Your task to perform on an android device: toggle location history Image 0: 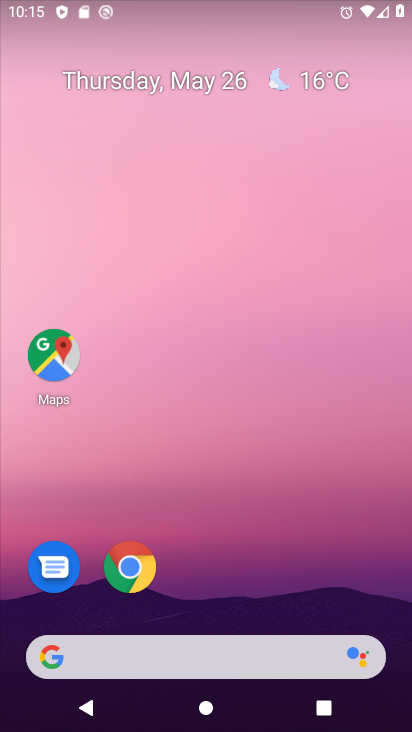
Step 0: press home button
Your task to perform on an android device: toggle location history Image 1: 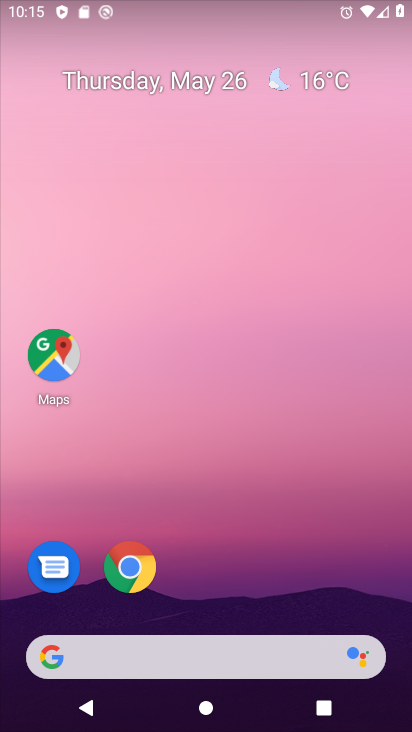
Step 1: drag from (395, 703) to (343, 188)
Your task to perform on an android device: toggle location history Image 2: 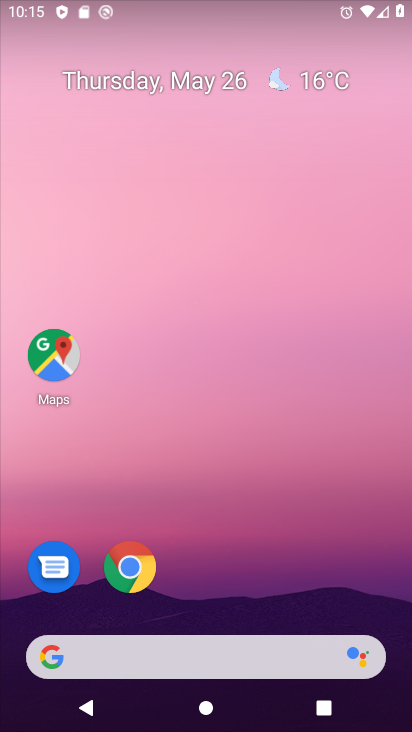
Step 2: drag from (364, 582) to (327, 166)
Your task to perform on an android device: toggle location history Image 3: 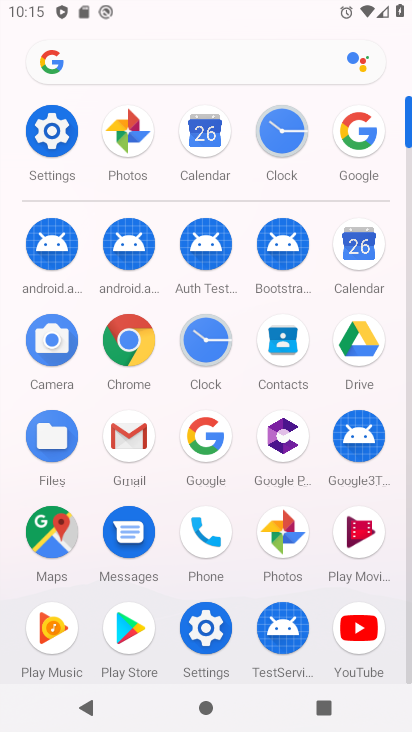
Step 3: click (47, 143)
Your task to perform on an android device: toggle location history Image 4: 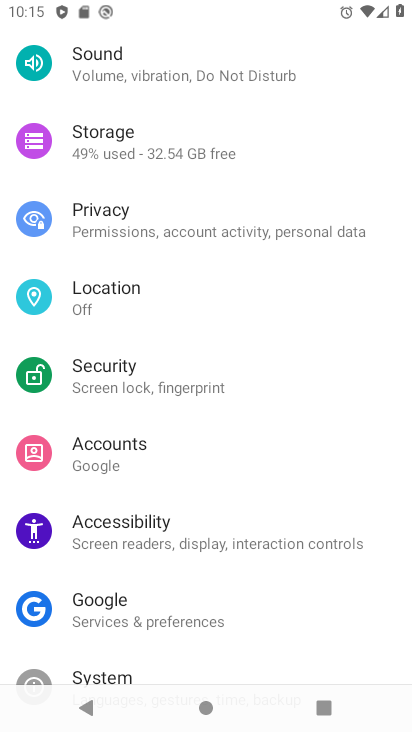
Step 4: drag from (311, 252) to (281, 580)
Your task to perform on an android device: toggle location history Image 5: 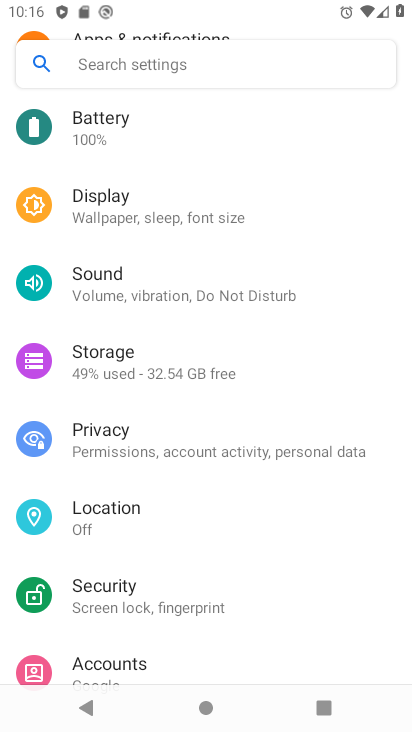
Step 5: click (69, 499)
Your task to perform on an android device: toggle location history Image 6: 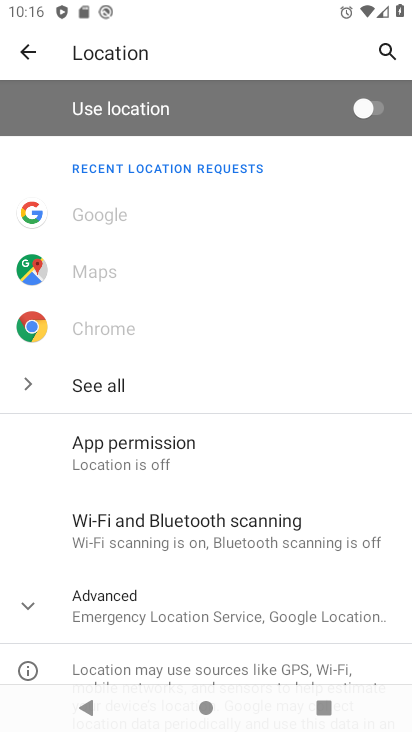
Step 6: click (25, 608)
Your task to perform on an android device: toggle location history Image 7: 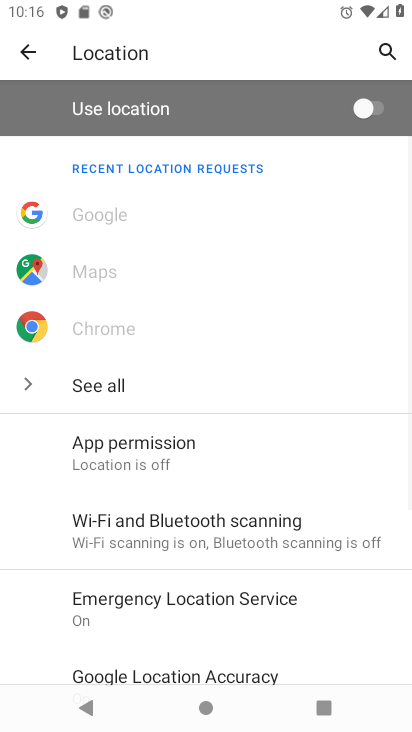
Step 7: drag from (323, 662) to (277, 282)
Your task to perform on an android device: toggle location history Image 8: 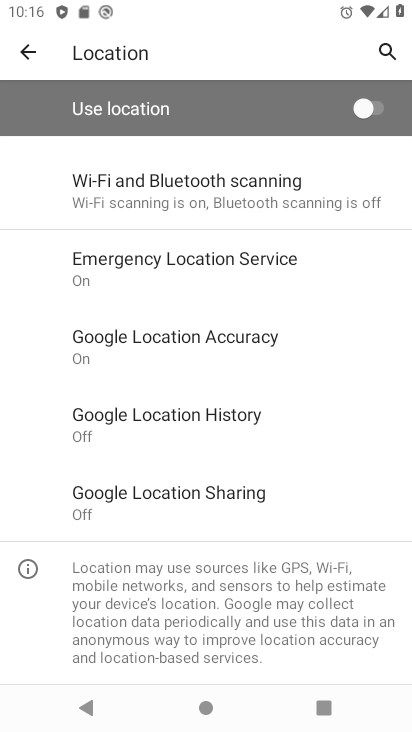
Step 8: click (139, 412)
Your task to perform on an android device: toggle location history Image 9: 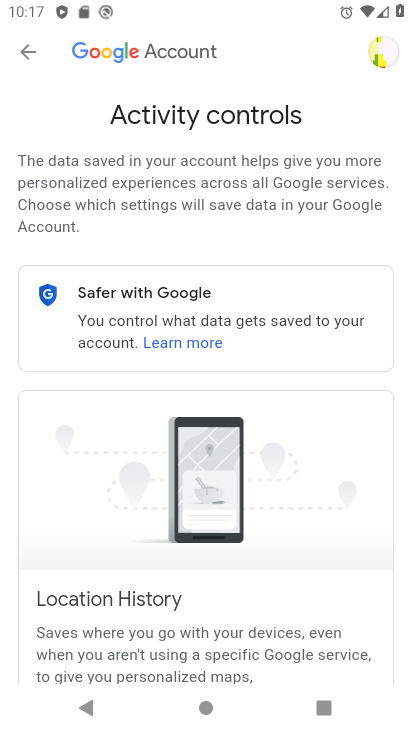
Step 9: drag from (270, 583) to (261, 158)
Your task to perform on an android device: toggle location history Image 10: 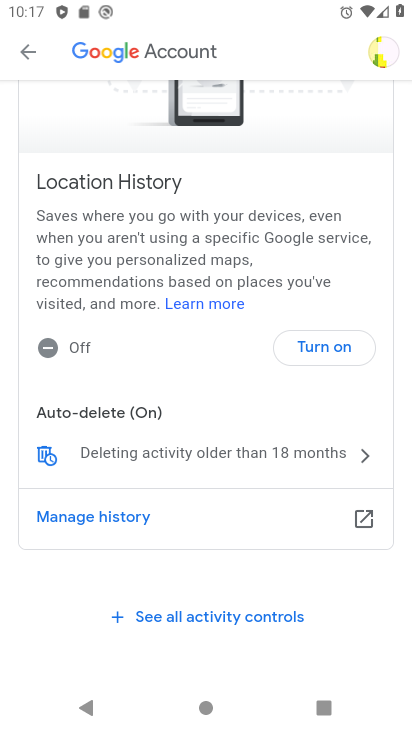
Step 10: click (294, 344)
Your task to perform on an android device: toggle location history Image 11: 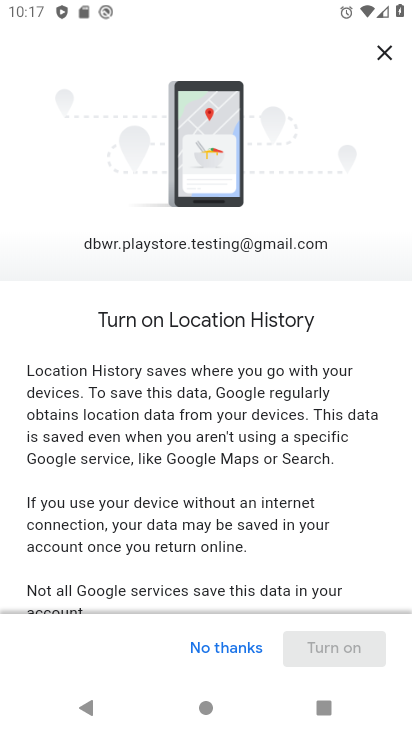
Step 11: drag from (246, 593) to (244, 238)
Your task to perform on an android device: toggle location history Image 12: 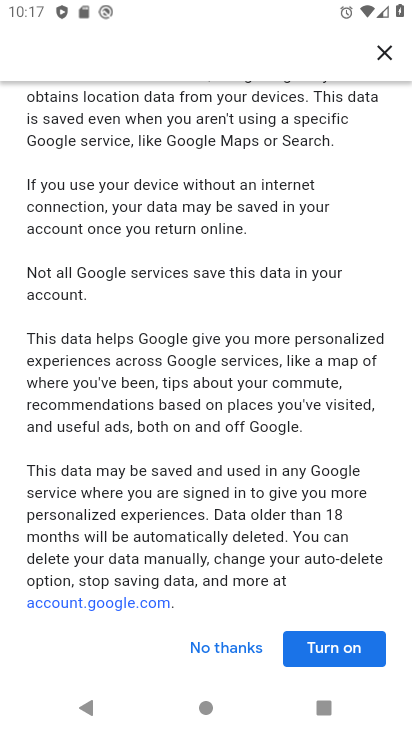
Step 12: click (334, 642)
Your task to perform on an android device: toggle location history Image 13: 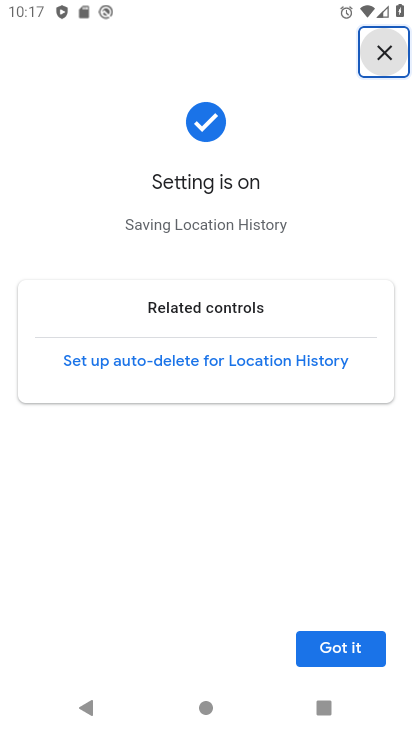
Step 13: click (337, 649)
Your task to perform on an android device: toggle location history Image 14: 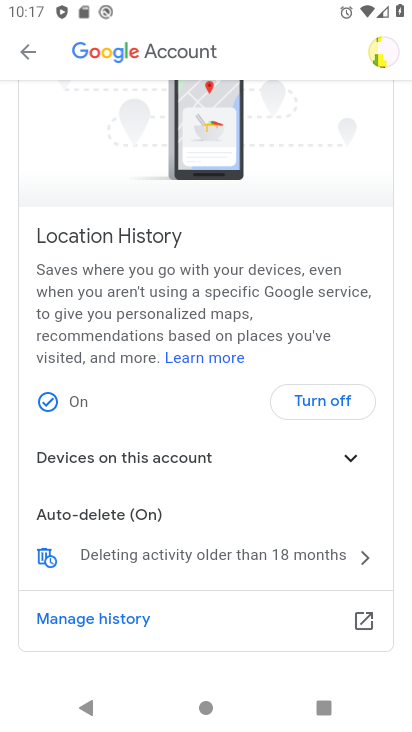
Step 14: task complete